Your task to perform on an android device: Clear the cart on walmart. Search for razer huntsman on walmart, select the first entry, and add it to the cart. Image 0: 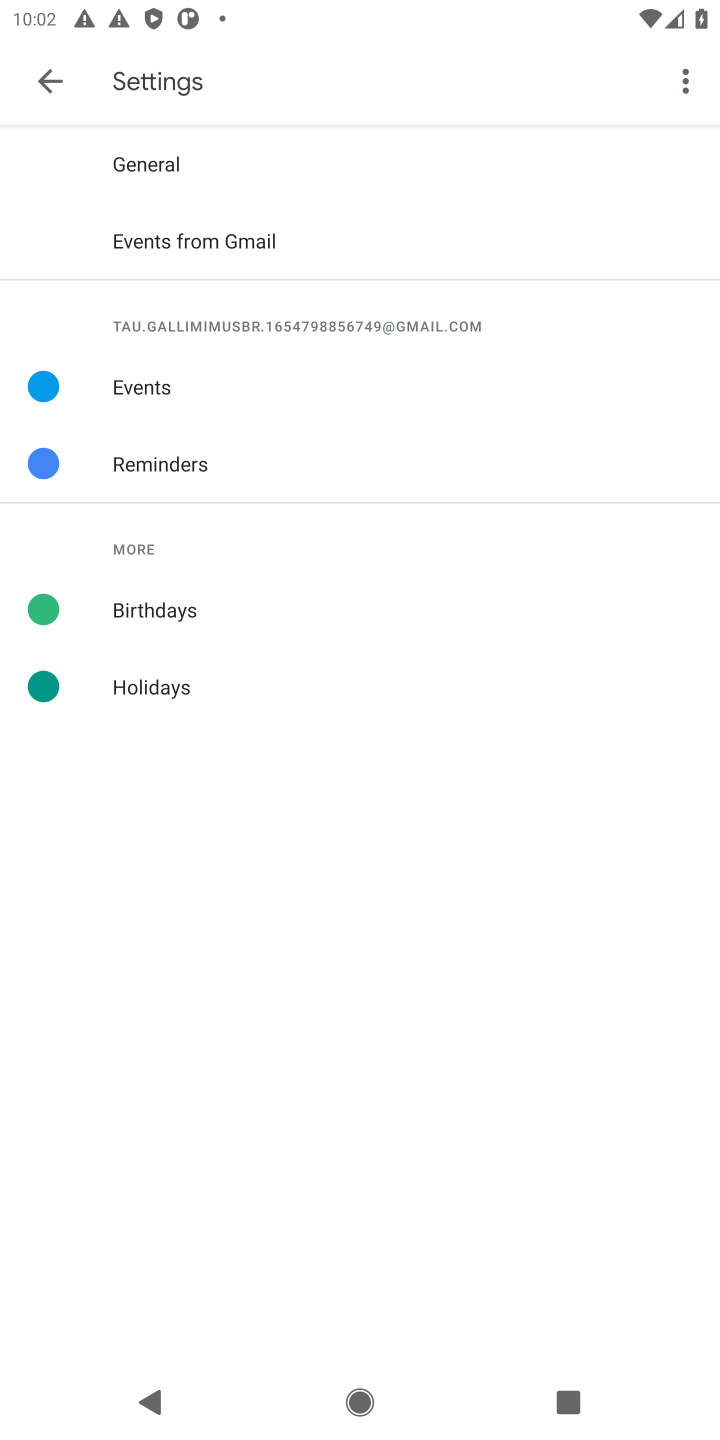
Step 0: press home button
Your task to perform on an android device: Clear the cart on walmart. Search for razer huntsman on walmart, select the first entry, and add it to the cart. Image 1: 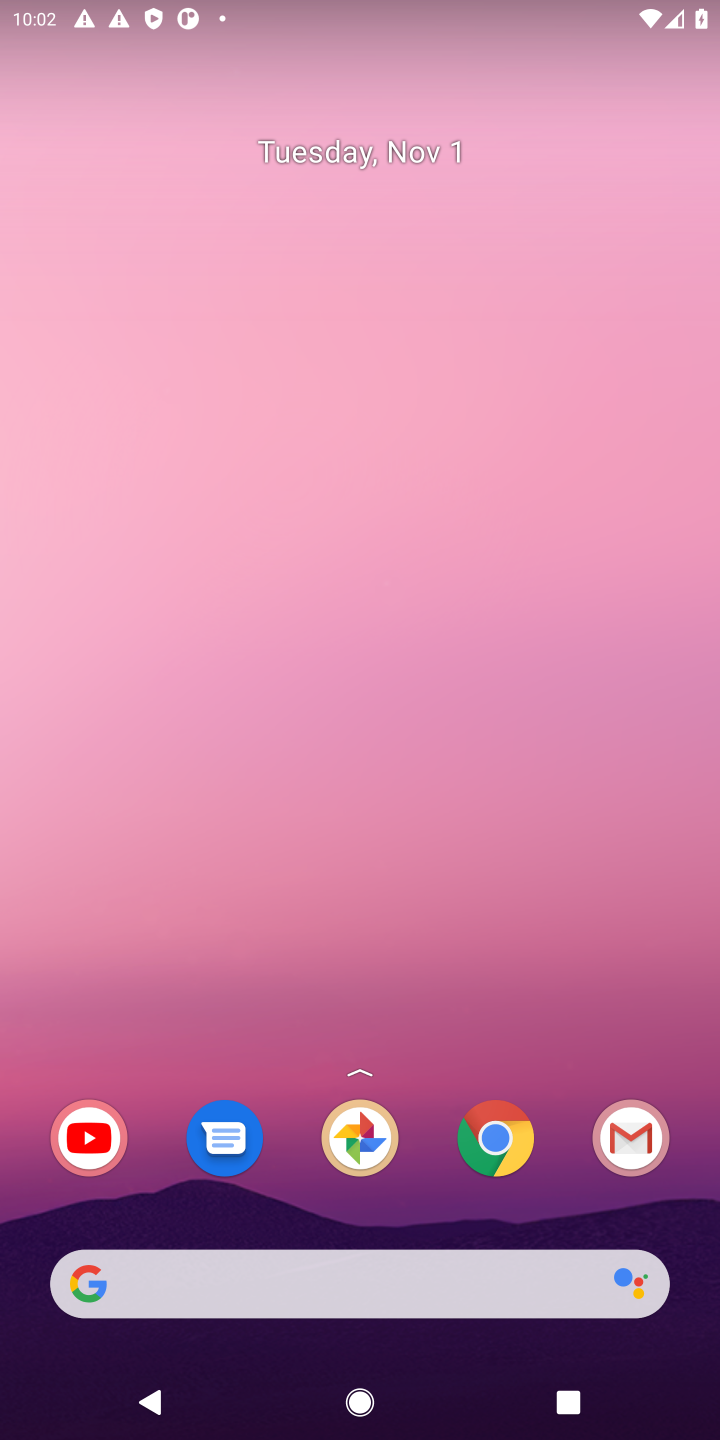
Step 1: click (494, 1148)
Your task to perform on an android device: Clear the cart on walmart. Search for razer huntsman on walmart, select the first entry, and add it to the cart. Image 2: 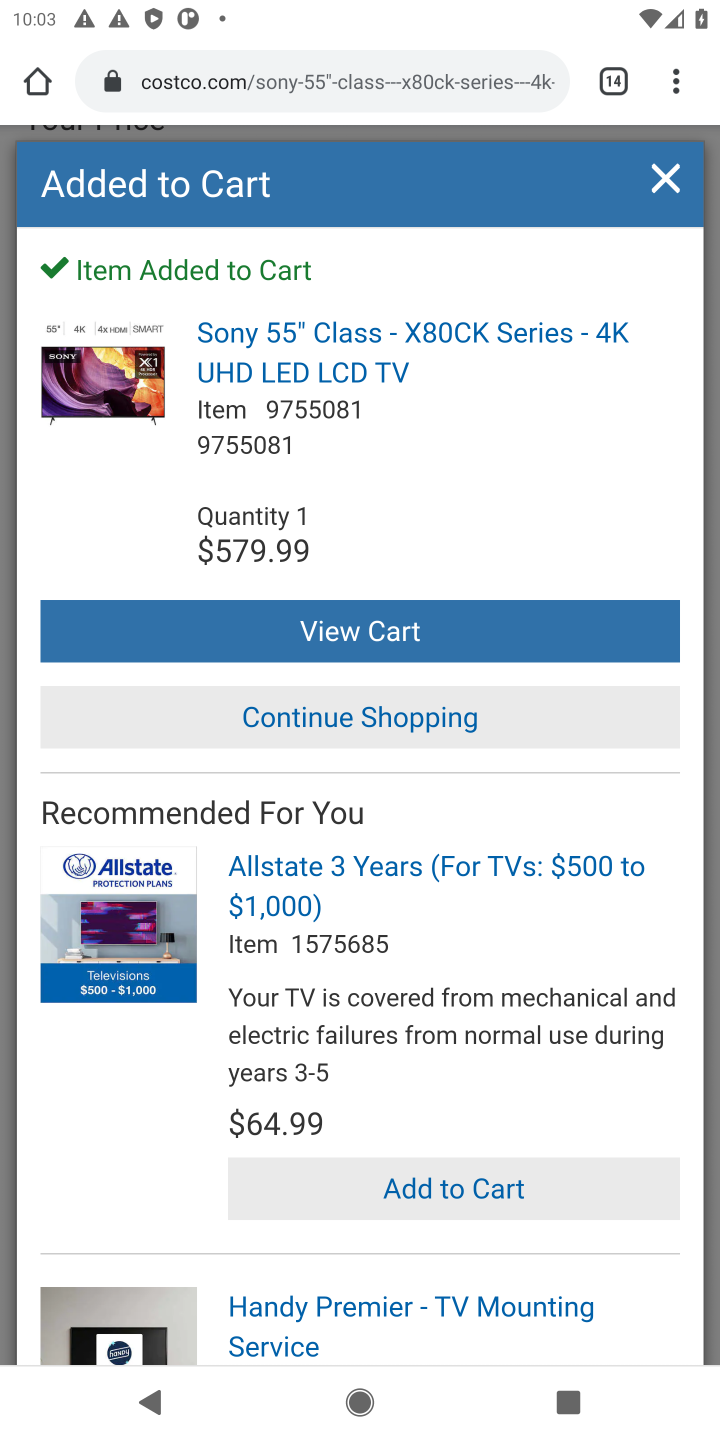
Step 2: drag from (677, 92) to (359, 171)
Your task to perform on an android device: Clear the cart on walmart. Search for razer huntsman on walmart, select the first entry, and add it to the cart. Image 3: 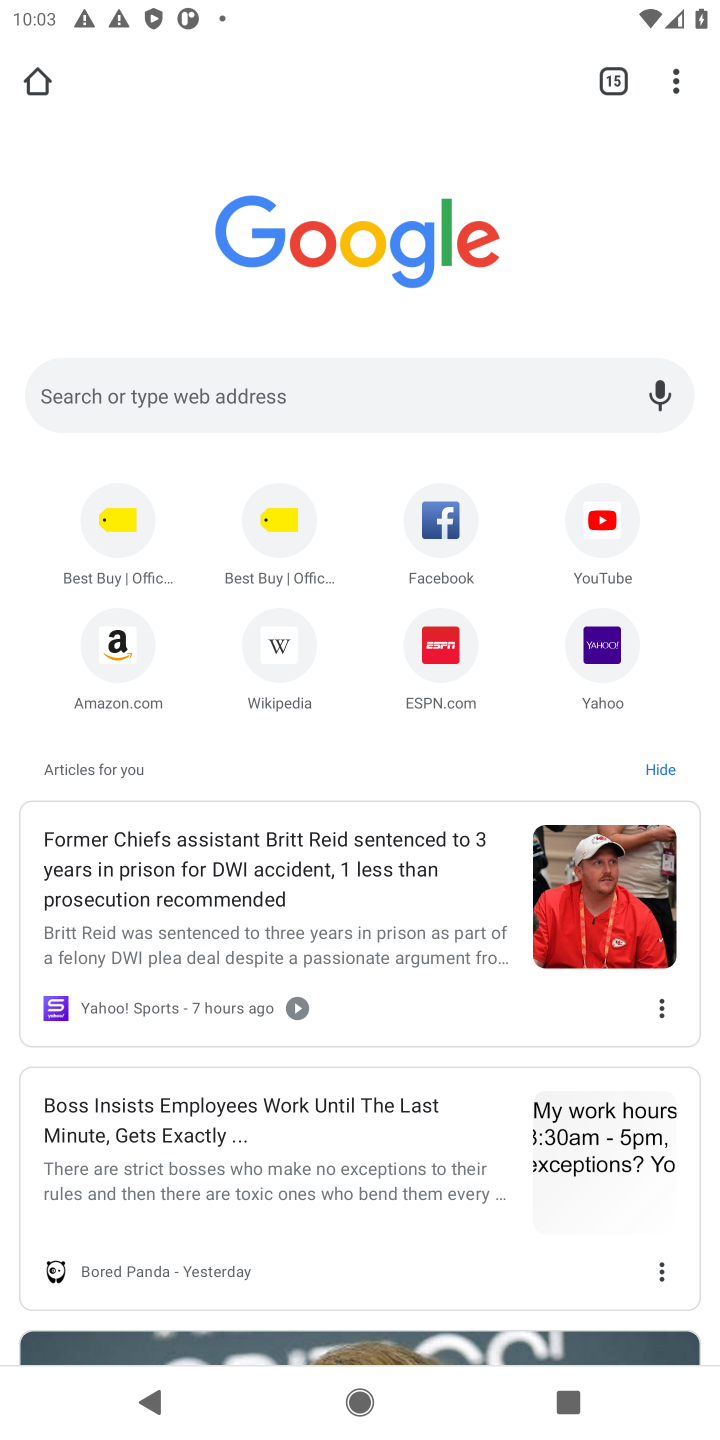
Step 3: click (279, 390)
Your task to perform on an android device: Clear the cart on walmart. Search for razer huntsman on walmart, select the first entry, and add it to the cart. Image 4: 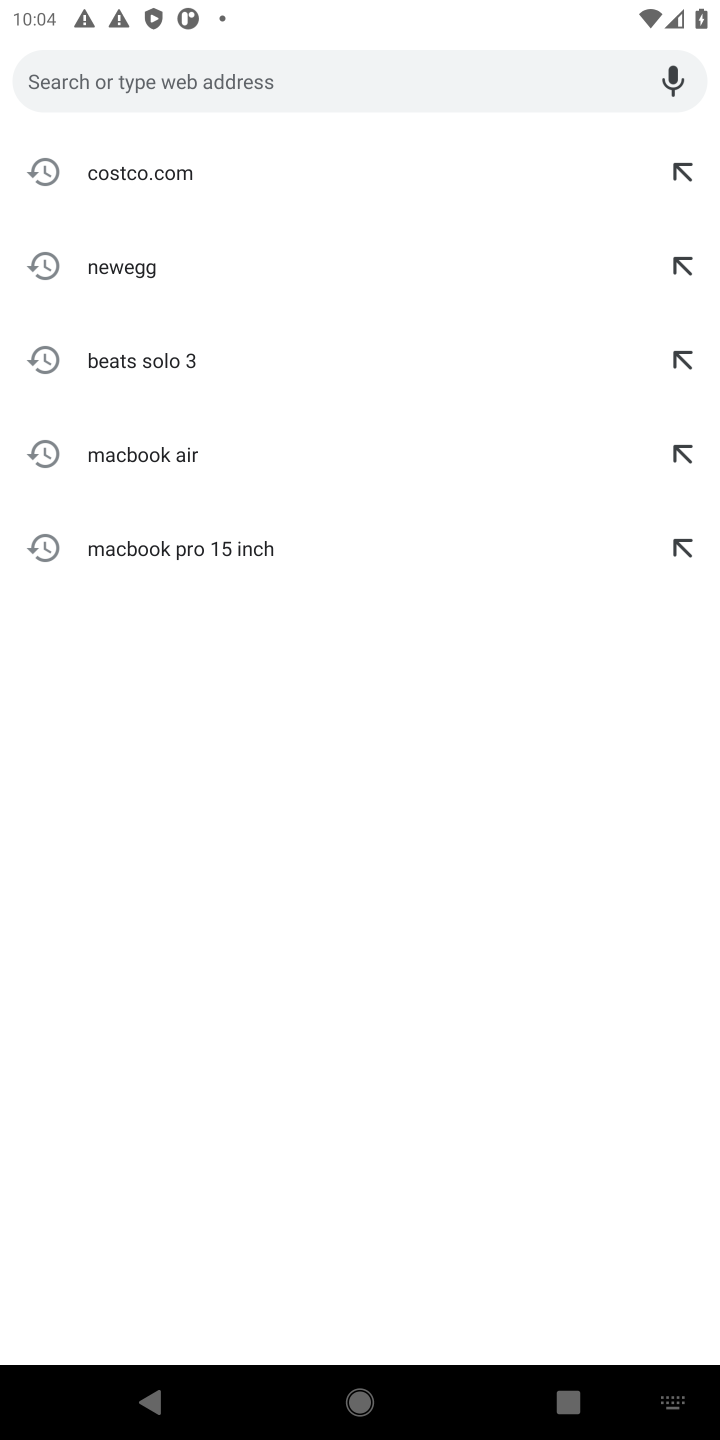
Step 4: type " walmart"
Your task to perform on an android device: Clear the cart on walmart. Search for razer huntsman on walmart, select the first entry, and add it to the cart. Image 5: 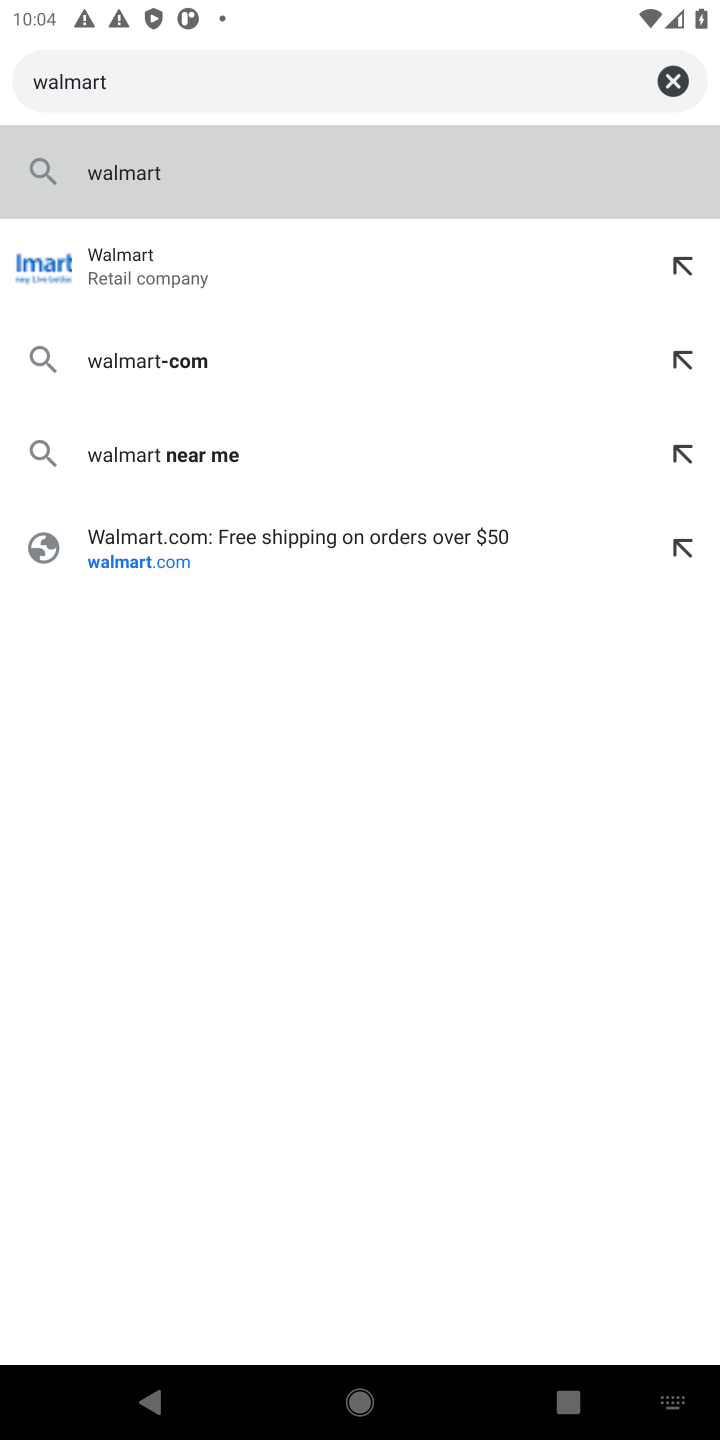
Step 5: click (142, 274)
Your task to perform on an android device: Clear the cart on walmart. Search for razer huntsman on walmart, select the first entry, and add it to the cart. Image 6: 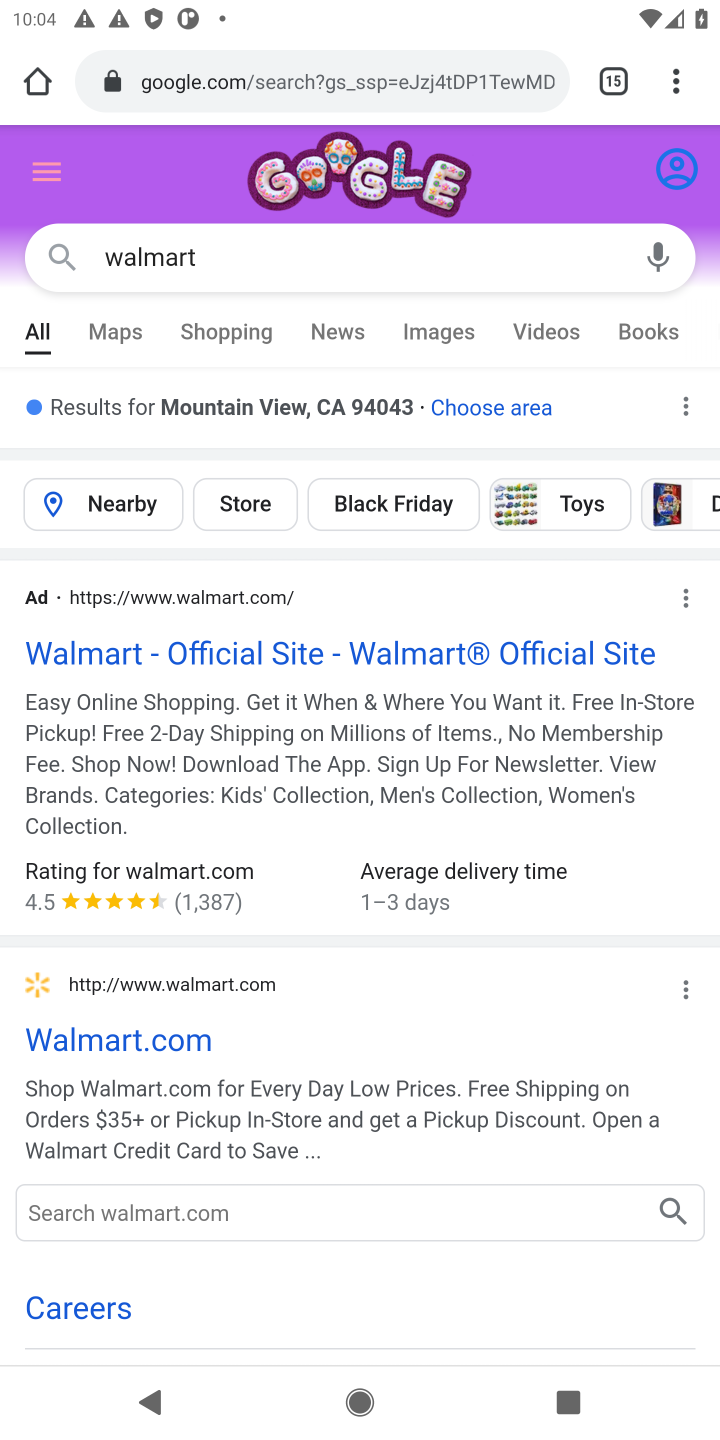
Step 6: click (96, 1036)
Your task to perform on an android device: Clear the cart on walmart. Search for razer huntsman on walmart, select the first entry, and add it to the cart. Image 7: 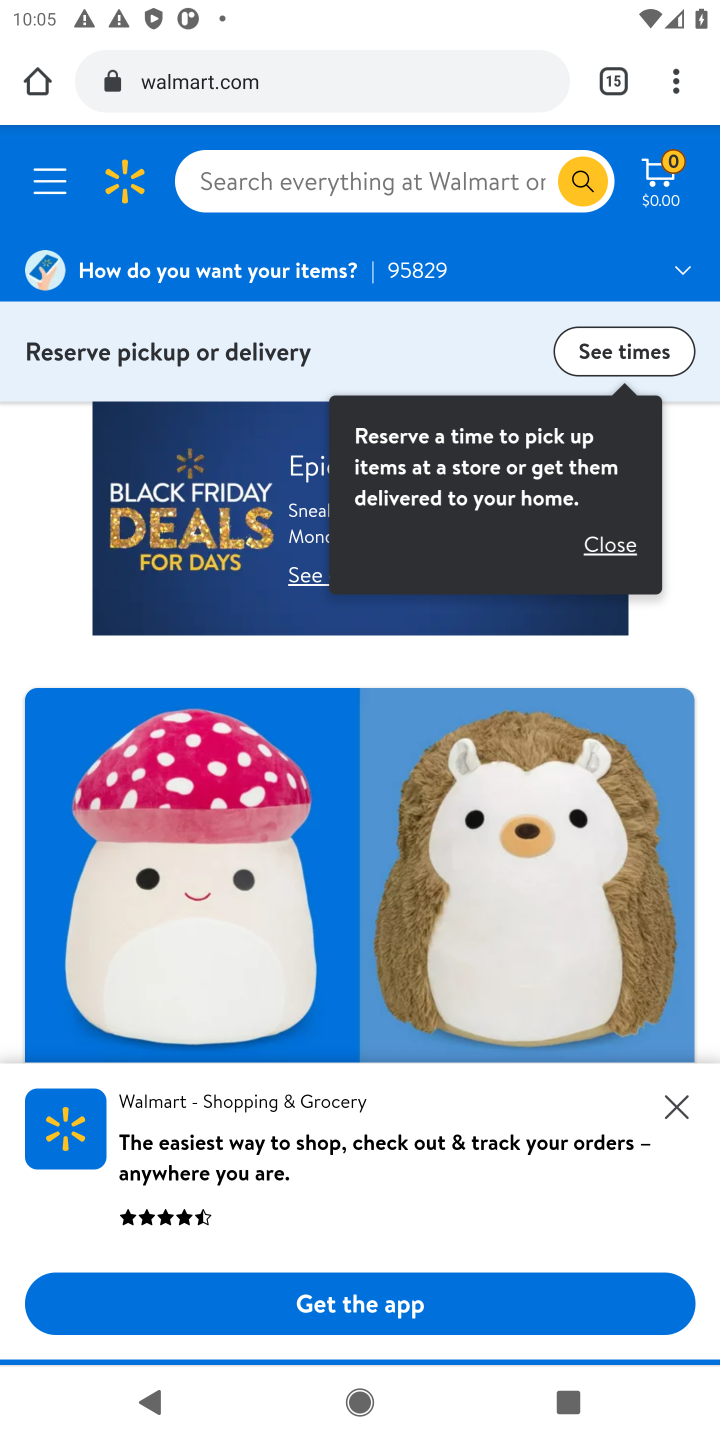
Step 7: click (678, 1097)
Your task to perform on an android device: Clear the cart on walmart. Search for razer huntsman on walmart, select the first entry, and add it to the cart. Image 8: 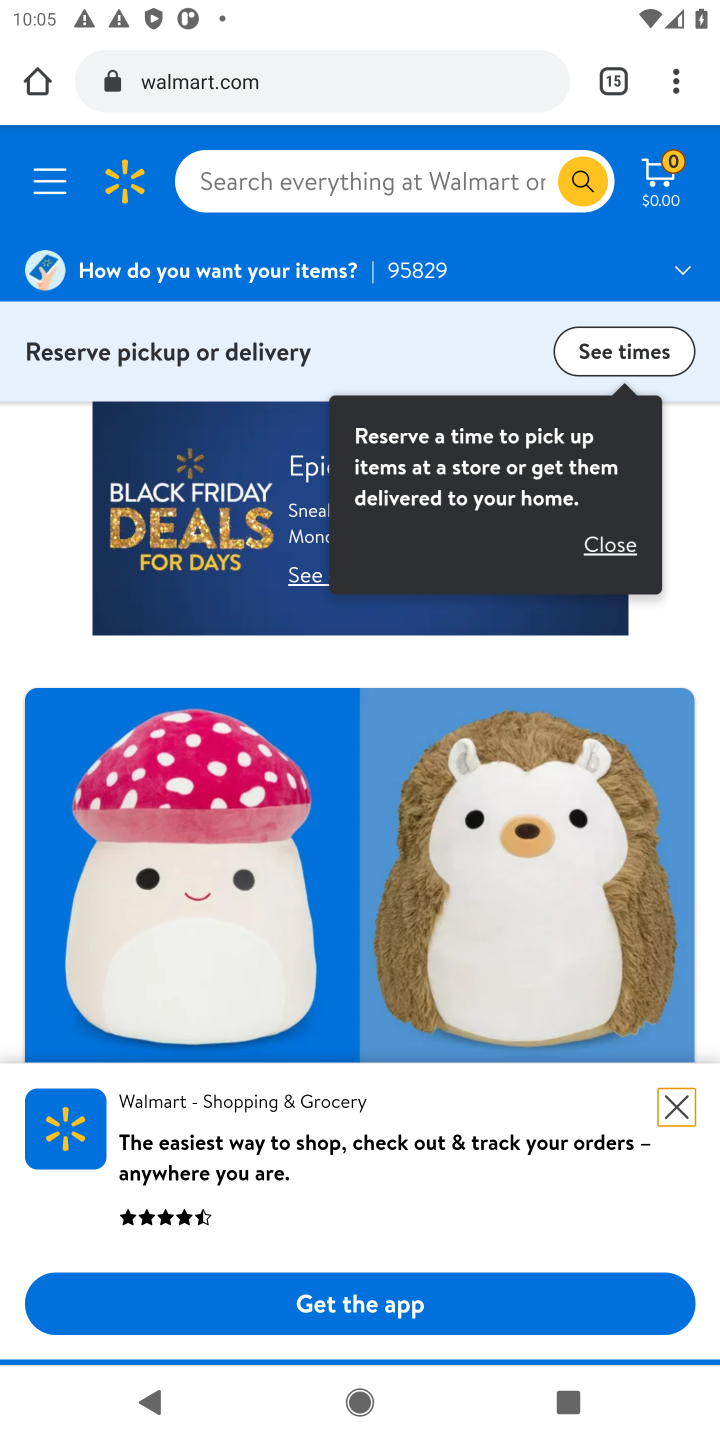
Step 8: click (511, 183)
Your task to perform on an android device: Clear the cart on walmart. Search for razer huntsman on walmart, select the first entry, and add it to the cart. Image 9: 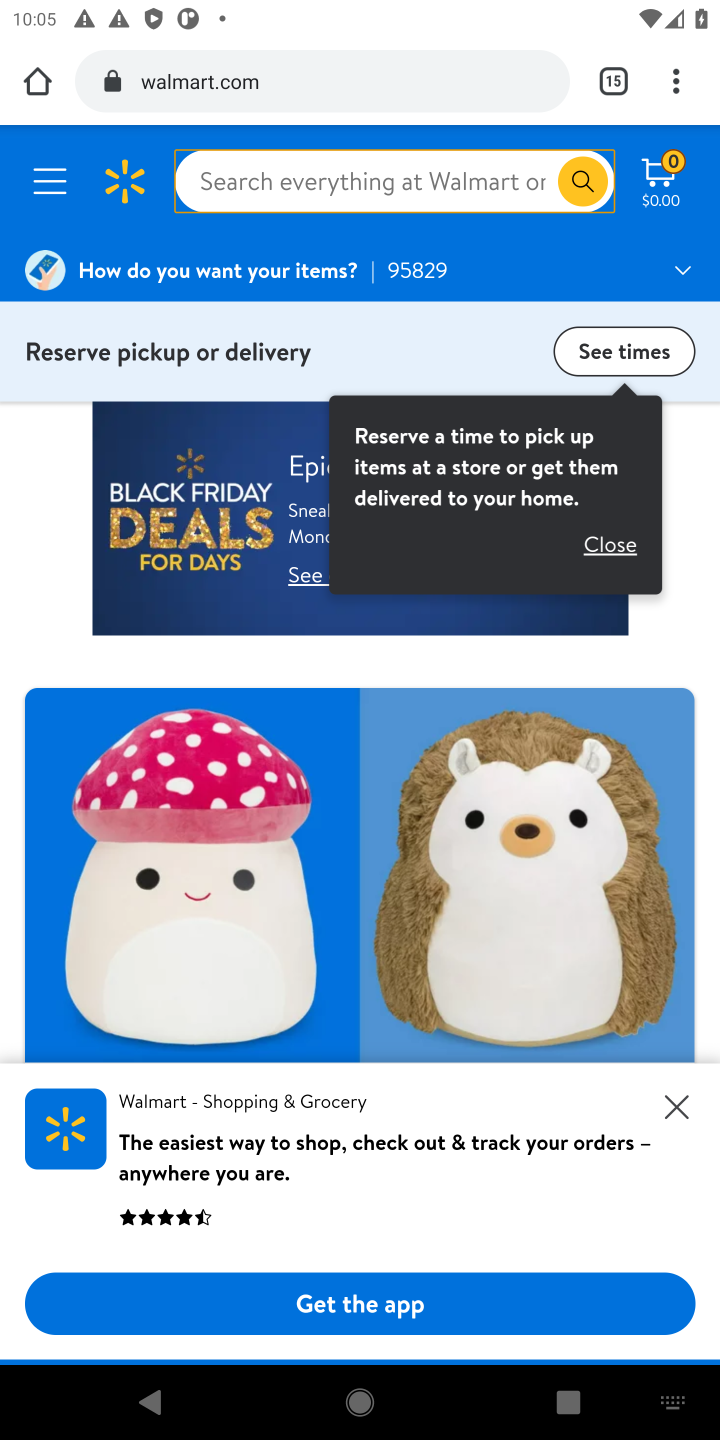
Step 9: type "razer huntsman"
Your task to perform on an android device: Clear the cart on walmart. Search for razer huntsman on walmart, select the first entry, and add it to the cart. Image 10: 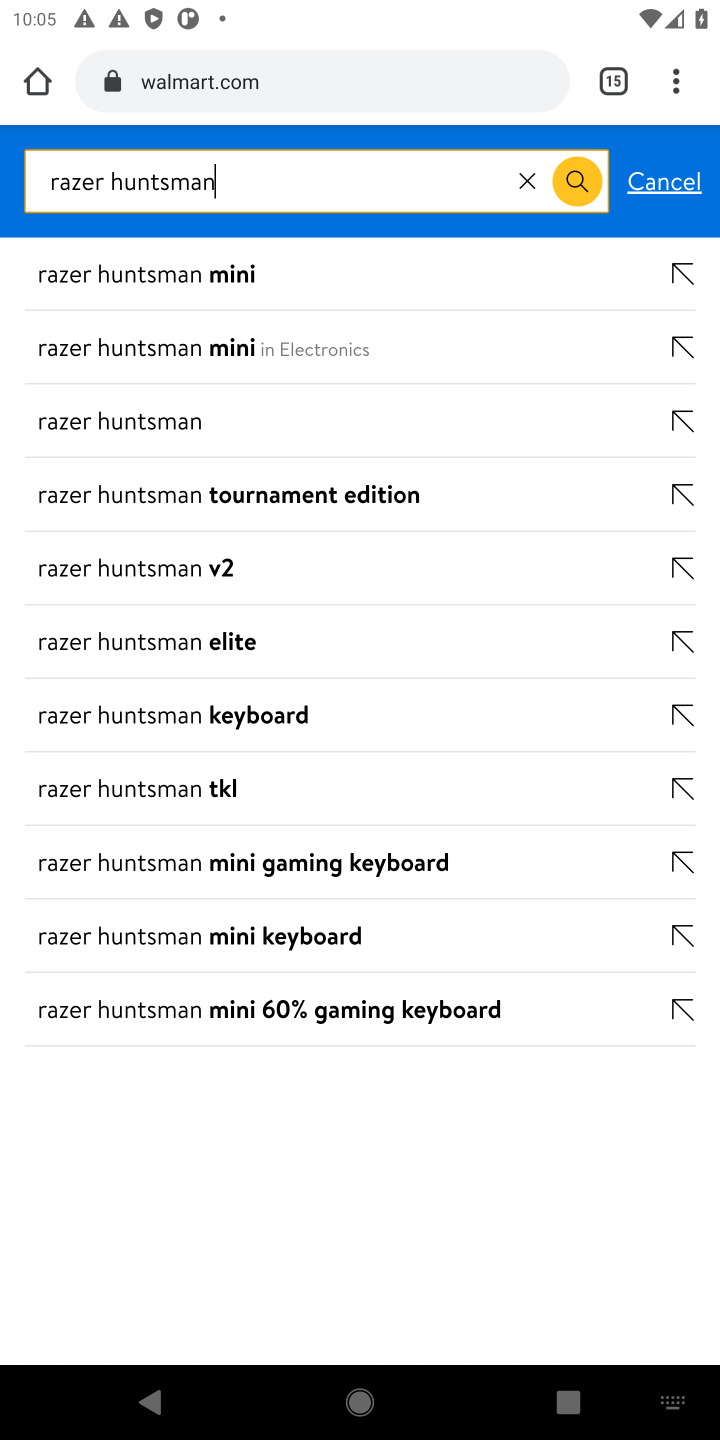
Step 10: click (146, 422)
Your task to perform on an android device: Clear the cart on walmart. Search for razer huntsman on walmart, select the first entry, and add it to the cart. Image 11: 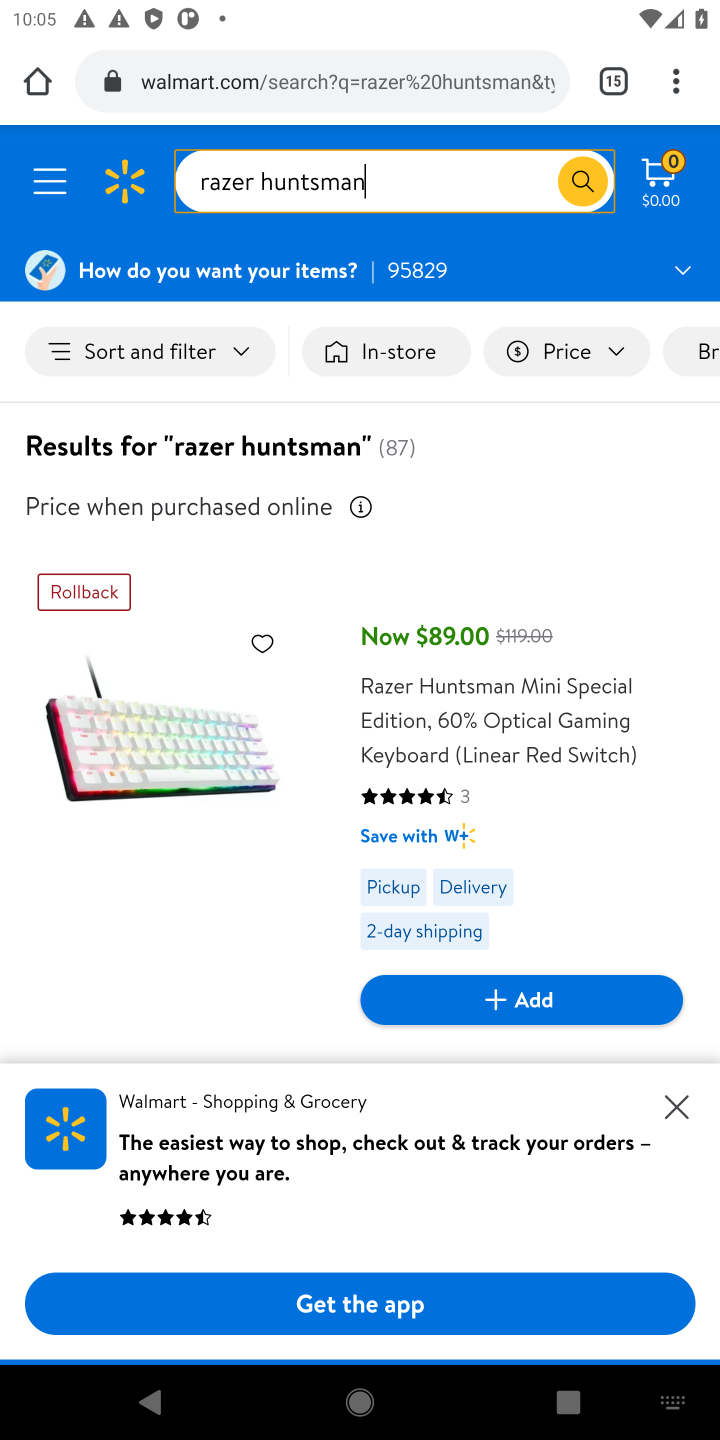
Step 11: click (562, 998)
Your task to perform on an android device: Clear the cart on walmart. Search for razer huntsman on walmart, select the first entry, and add it to the cart. Image 12: 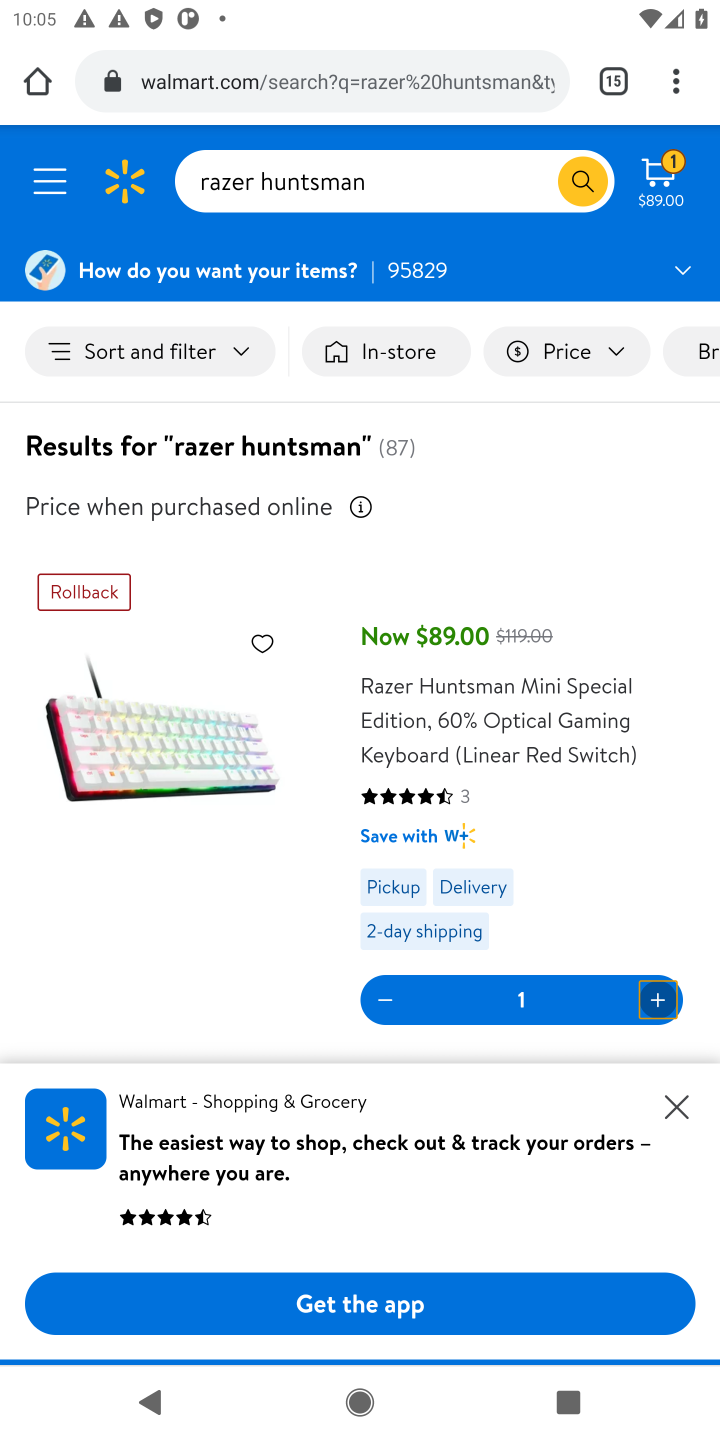
Step 12: click (668, 1094)
Your task to perform on an android device: Clear the cart on walmart. Search for razer huntsman on walmart, select the first entry, and add it to the cart. Image 13: 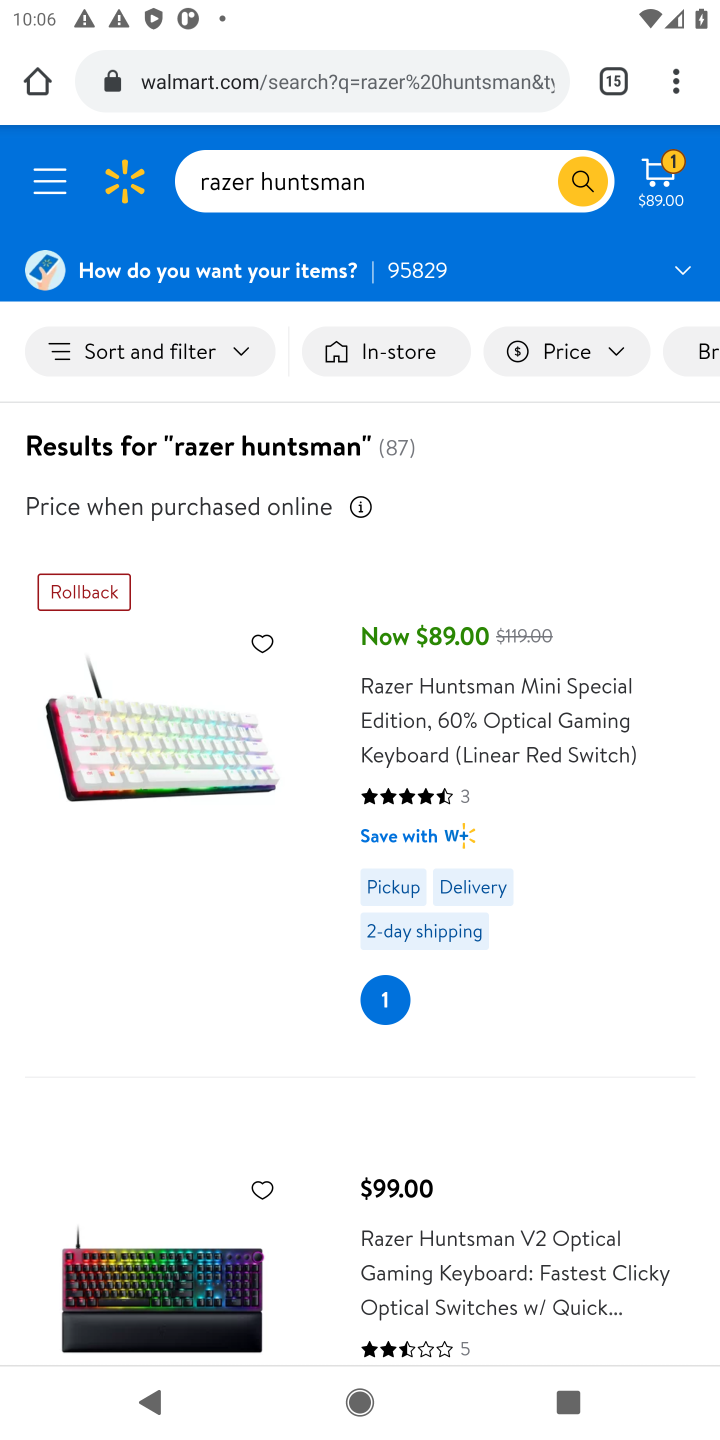
Step 13: click (515, 731)
Your task to perform on an android device: Clear the cart on walmart. Search for razer huntsman on walmart, select the first entry, and add it to the cart. Image 14: 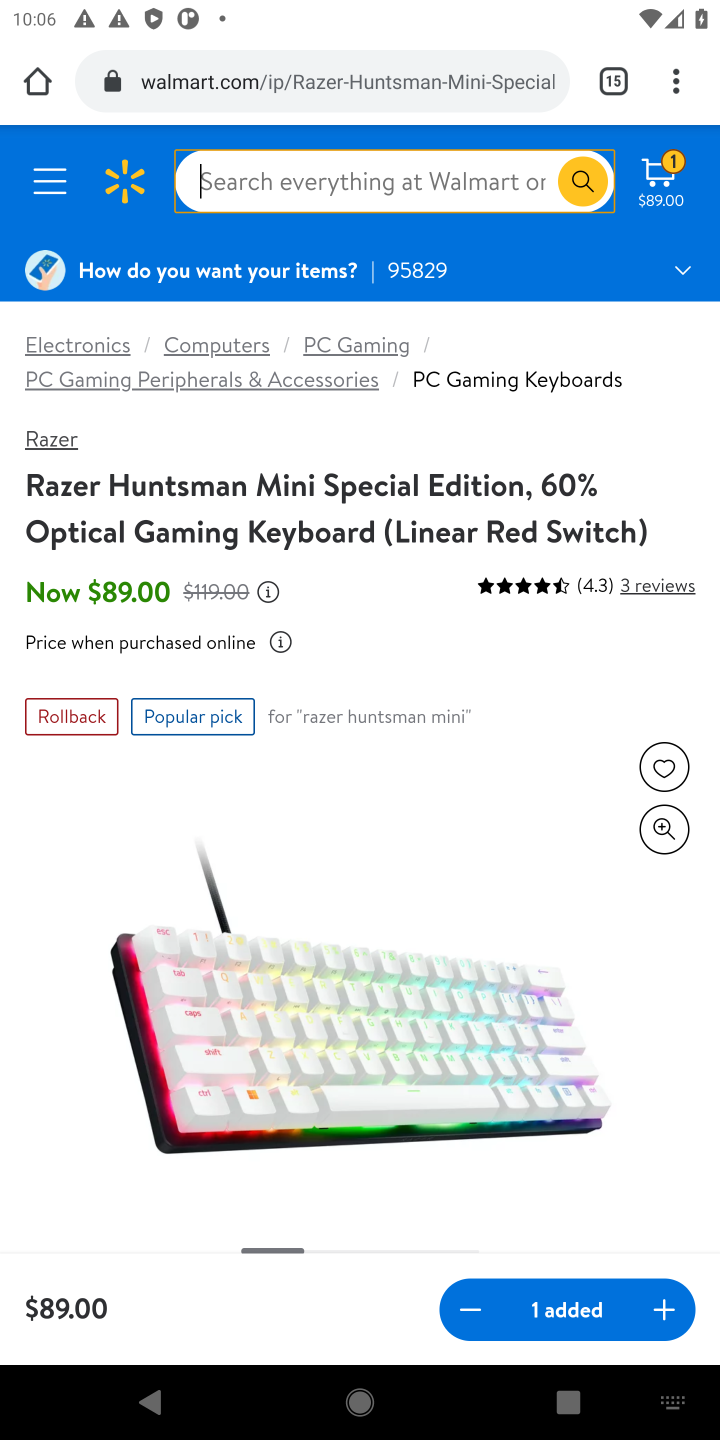
Step 14: task complete